Your task to perform on an android device: Search for flights from NYC to Tokyo Image 0: 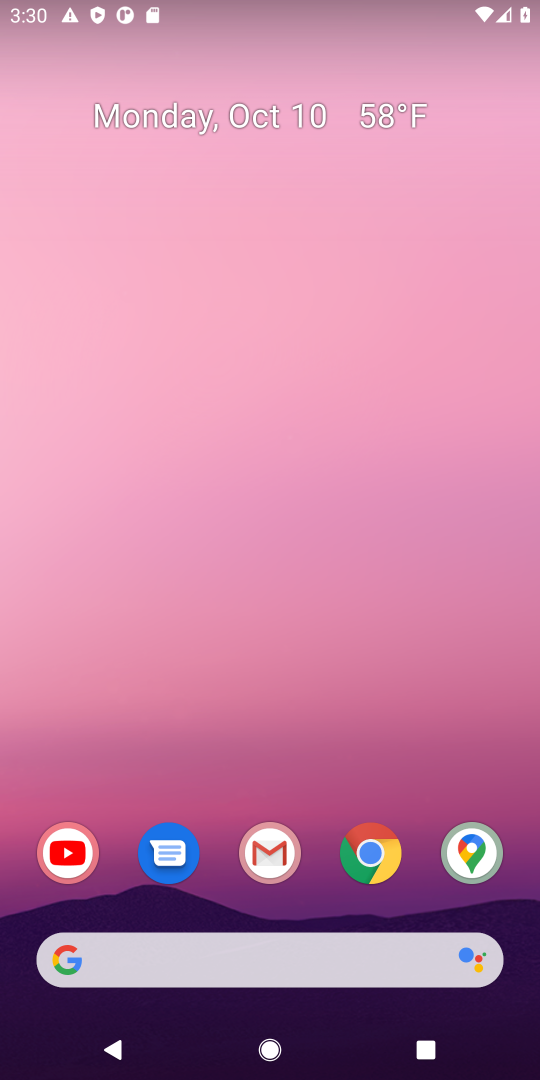
Step 0: click (189, 951)
Your task to perform on an android device: Search for flights from NYC to Tokyo Image 1: 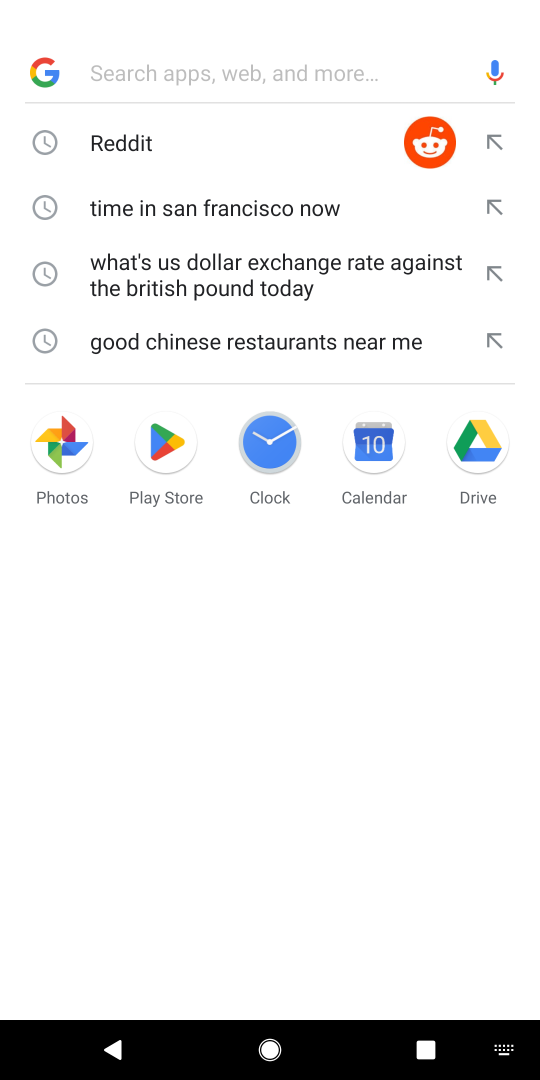
Step 1: click (108, 55)
Your task to perform on an android device: Search for flights from NYC to Tokyo Image 2: 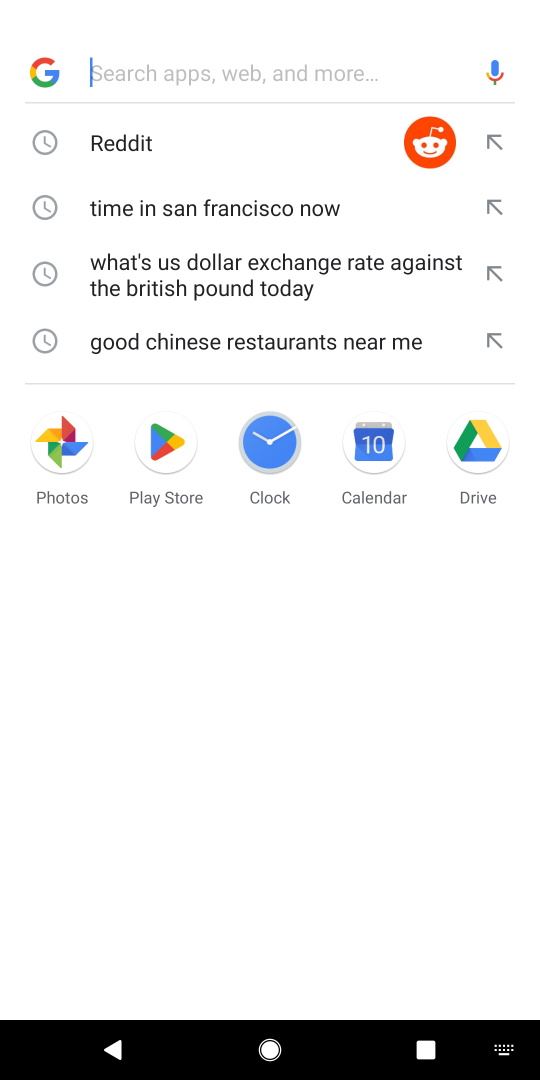
Step 2: type "flights from NYC to Tokyo"
Your task to perform on an android device: Search for flights from NYC to Tokyo Image 3: 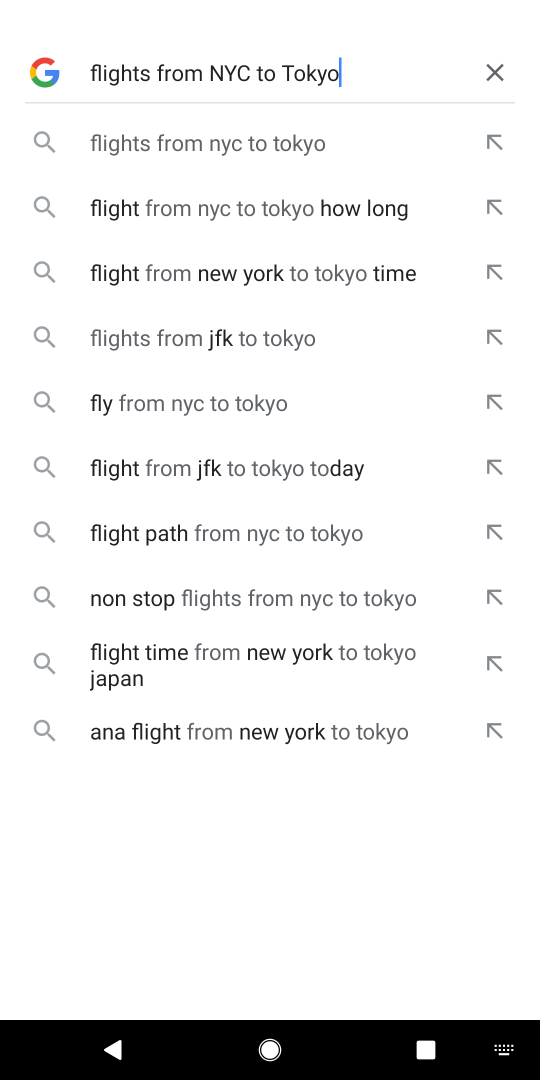
Step 3: click (257, 147)
Your task to perform on an android device: Search for flights from NYC to Tokyo Image 4: 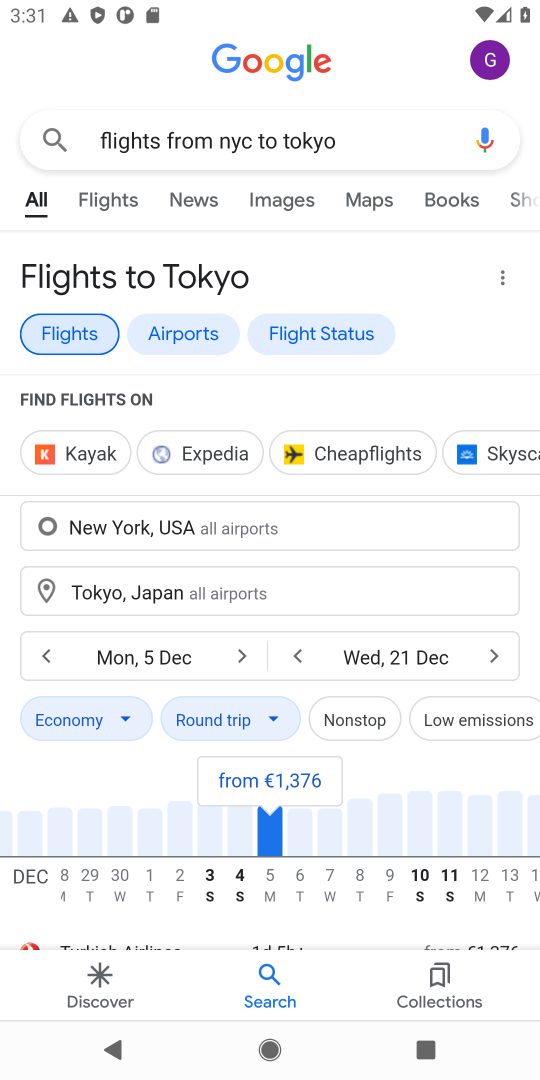
Step 4: task complete